Your task to perform on an android device: See recent photos Image 0: 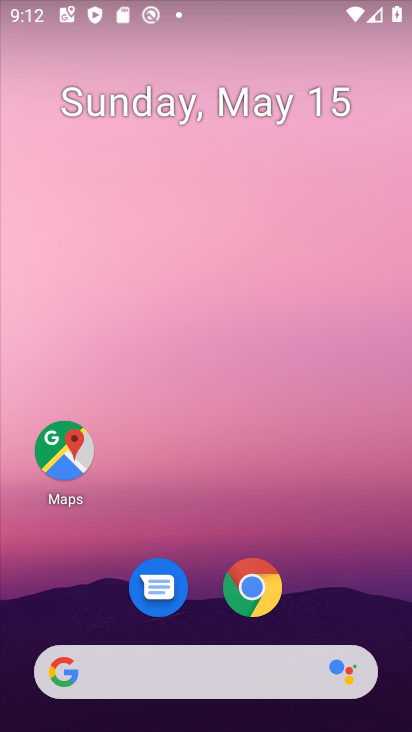
Step 0: drag from (389, 665) to (230, 86)
Your task to perform on an android device: See recent photos Image 1: 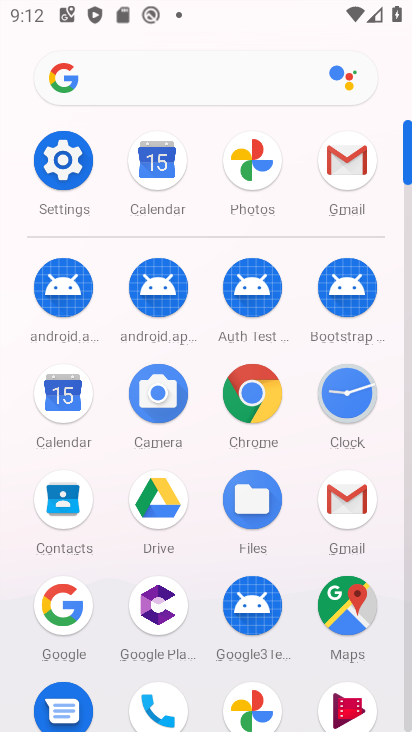
Step 1: click (251, 683)
Your task to perform on an android device: See recent photos Image 2: 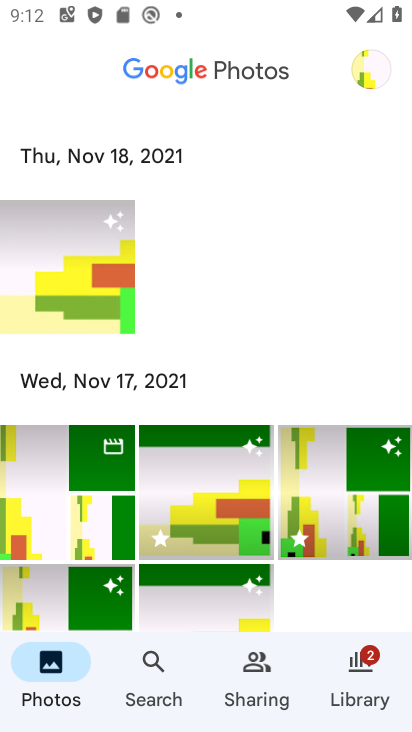
Step 2: click (104, 306)
Your task to perform on an android device: See recent photos Image 3: 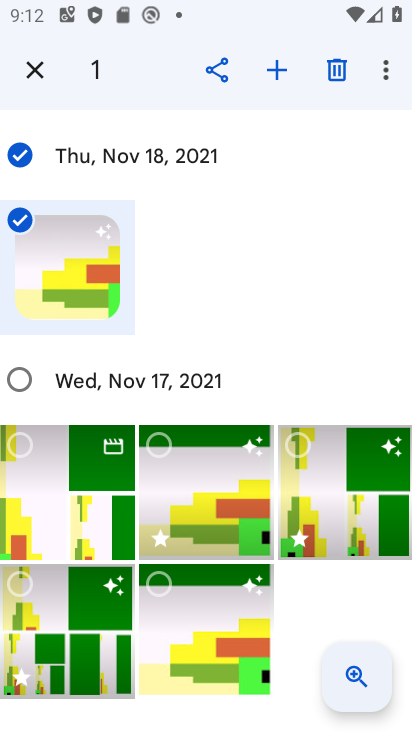
Step 3: click (104, 306)
Your task to perform on an android device: See recent photos Image 4: 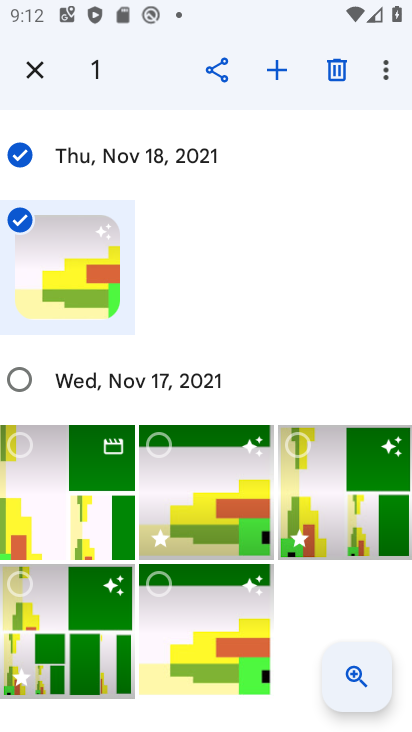
Step 4: click (71, 286)
Your task to perform on an android device: See recent photos Image 5: 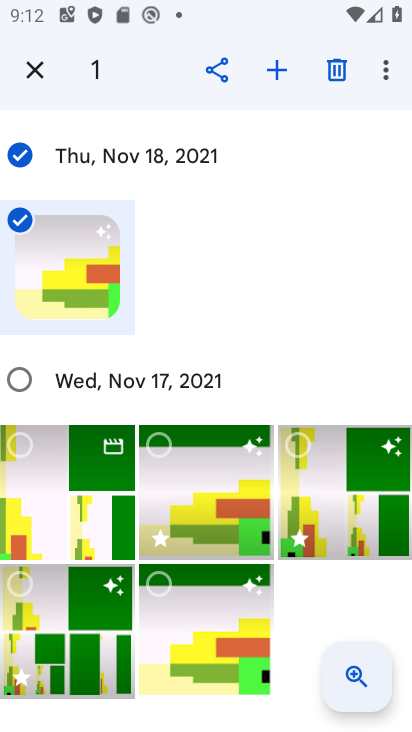
Step 5: click (34, 72)
Your task to perform on an android device: See recent photos Image 6: 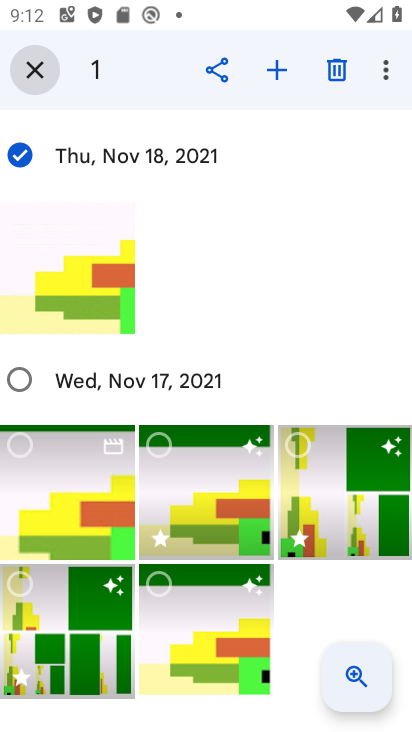
Step 6: click (48, 238)
Your task to perform on an android device: See recent photos Image 7: 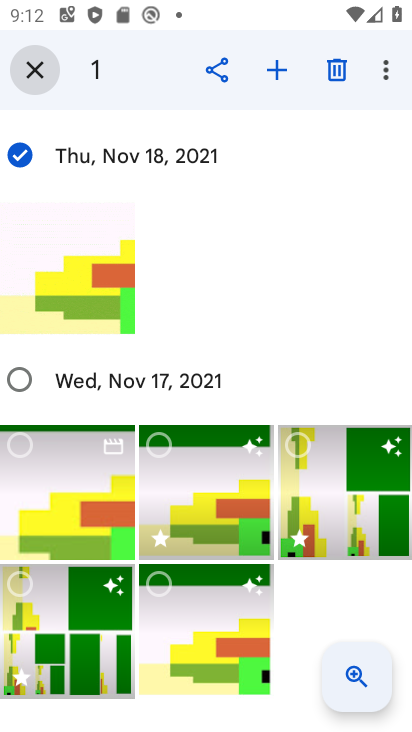
Step 7: click (41, 464)
Your task to perform on an android device: See recent photos Image 8: 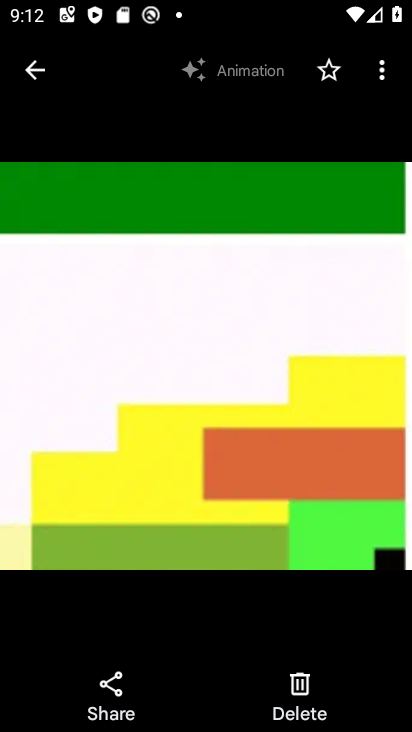
Step 8: task complete